Your task to perform on an android device: choose inbox layout in the gmail app Image 0: 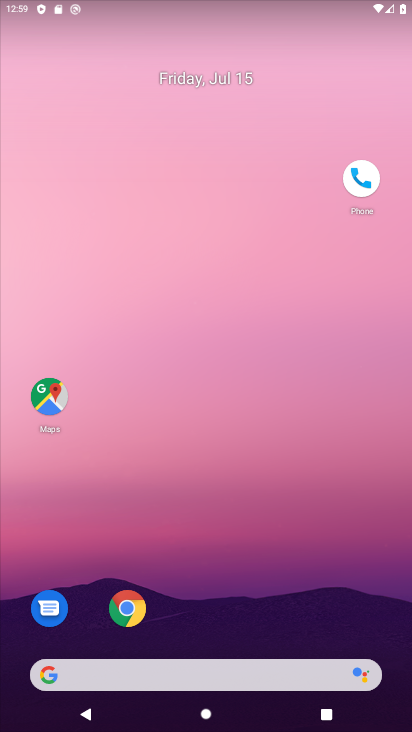
Step 0: drag from (169, 624) to (224, 81)
Your task to perform on an android device: choose inbox layout in the gmail app Image 1: 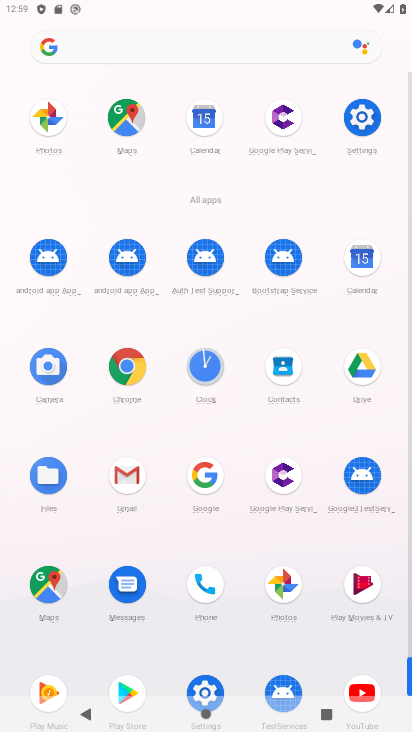
Step 1: click (126, 476)
Your task to perform on an android device: choose inbox layout in the gmail app Image 2: 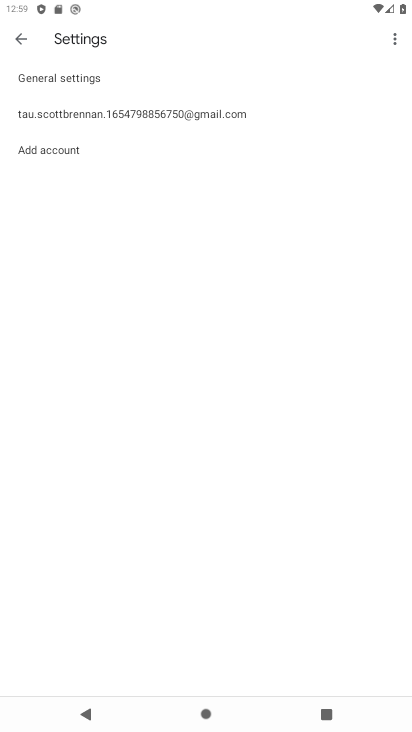
Step 2: drag from (203, 630) to (237, 301)
Your task to perform on an android device: choose inbox layout in the gmail app Image 3: 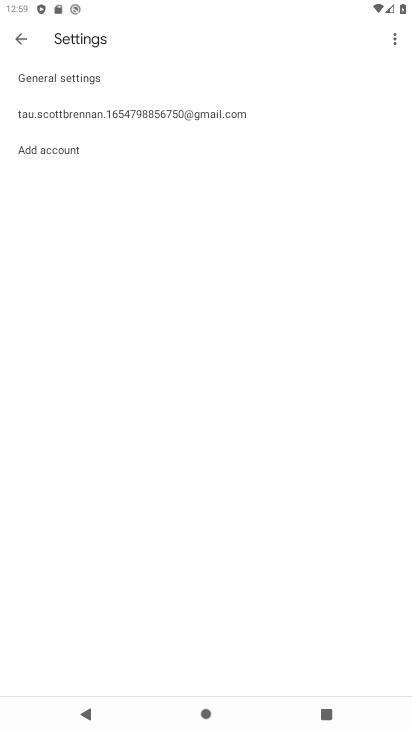
Step 3: click (21, 37)
Your task to perform on an android device: choose inbox layout in the gmail app Image 4: 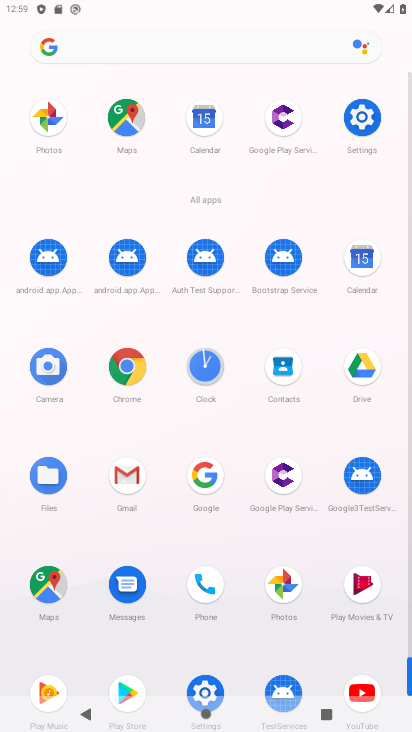
Step 4: click (126, 477)
Your task to perform on an android device: choose inbox layout in the gmail app Image 5: 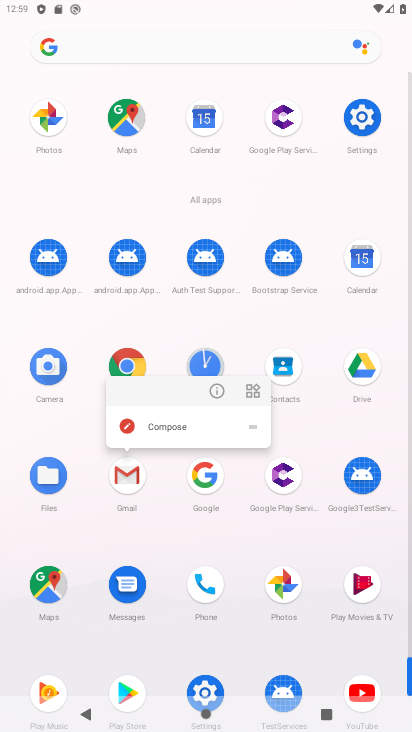
Step 5: click (208, 385)
Your task to perform on an android device: choose inbox layout in the gmail app Image 6: 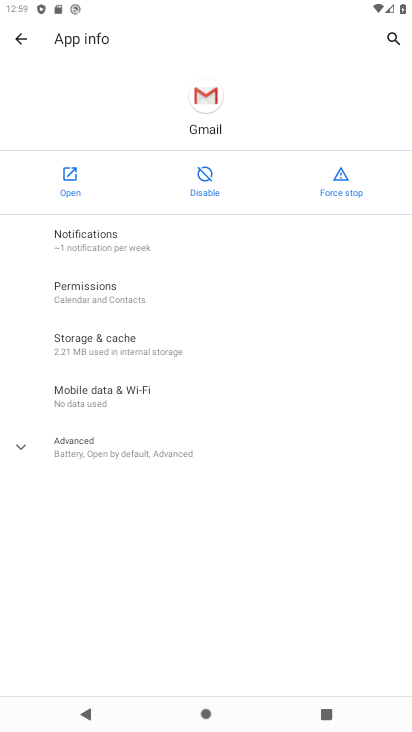
Step 6: click (62, 187)
Your task to perform on an android device: choose inbox layout in the gmail app Image 7: 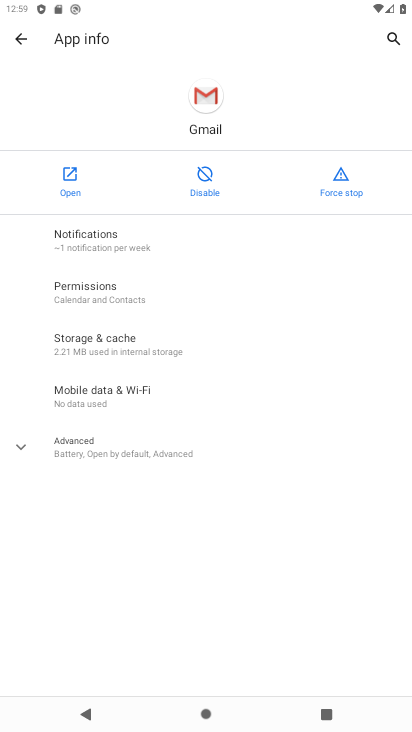
Step 7: click (62, 187)
Your task to perform on an android device: choose inbox layout in the gmail app Image 8: 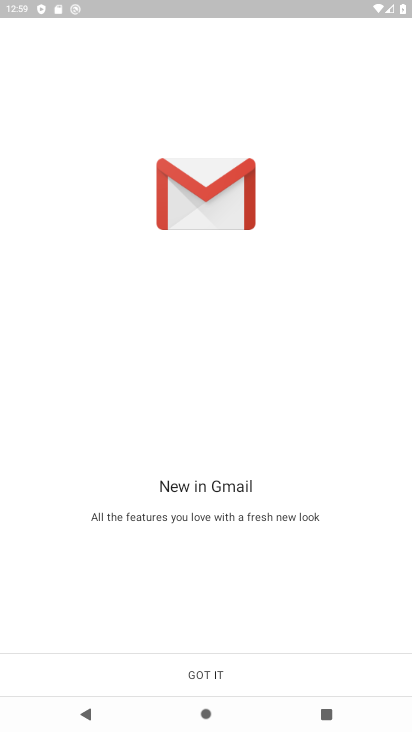
Step 8: click (209, 661)
Your task to perform on an android device: choose inbox layout in the gmail app Image 9: 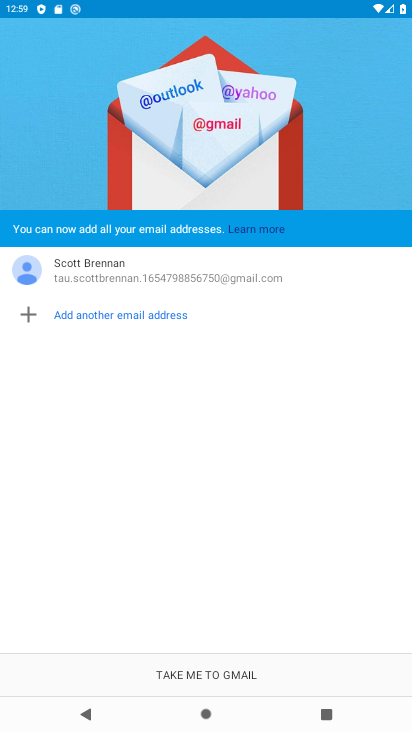
Step 9: drag from (252, 579) to (268, 442)
Your task to perform on an android device: choose inbox layout in the gmail app Image 10: 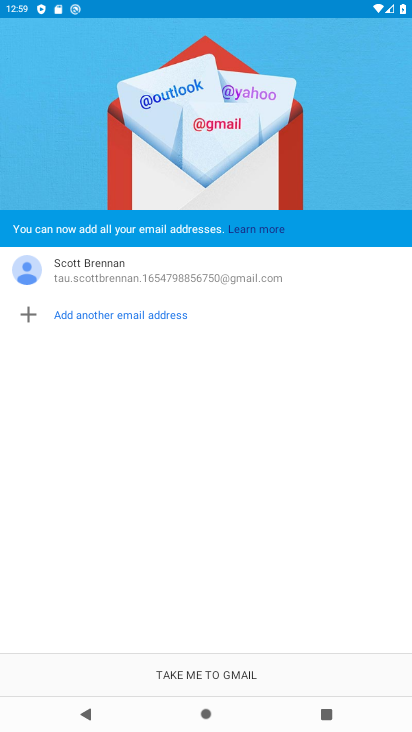
Step 10: click (209, 682)
Your task to perform on an android device: choose inbox layout in the gmail app Image 11: 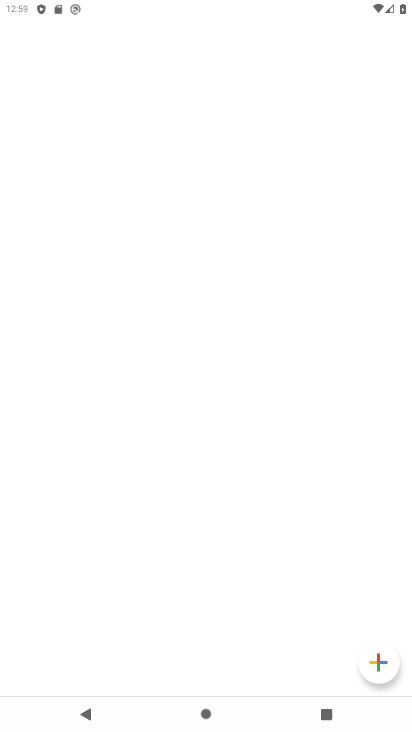
Step 11: drag from (309, 618) to (303, 286)
Your task to perform on an android device: choose inbox layout in the gmail app Image 12: 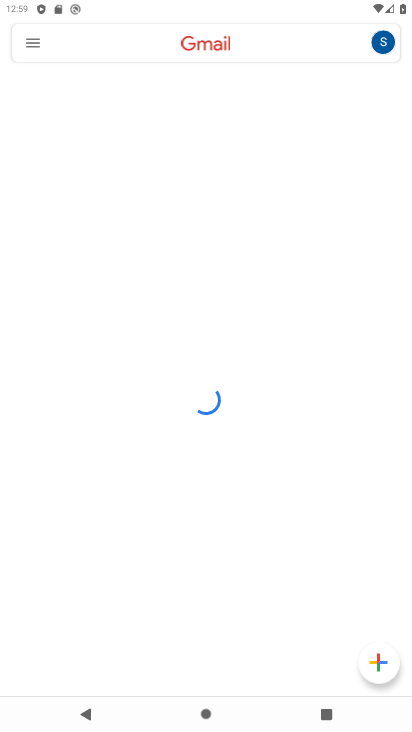
Step 12: drag from (271, 496) to (276, 266)
Your task to perform on an android device: choose inbox layout in the gmail app Image 13: 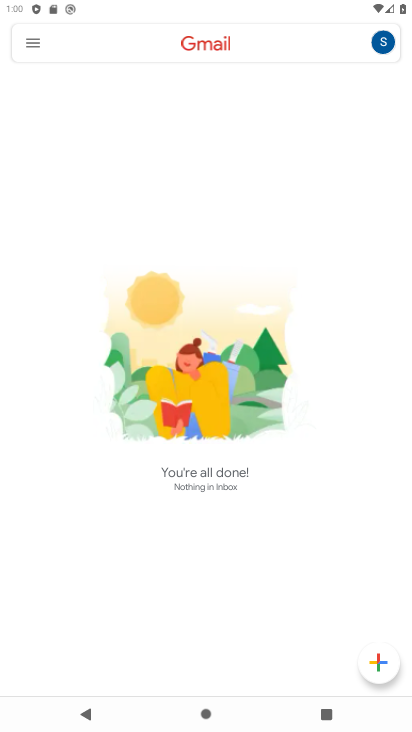
Step 13: click (35, 44)
Your task to perform on an android device: choose inbox layout in the gmail app Image 14: 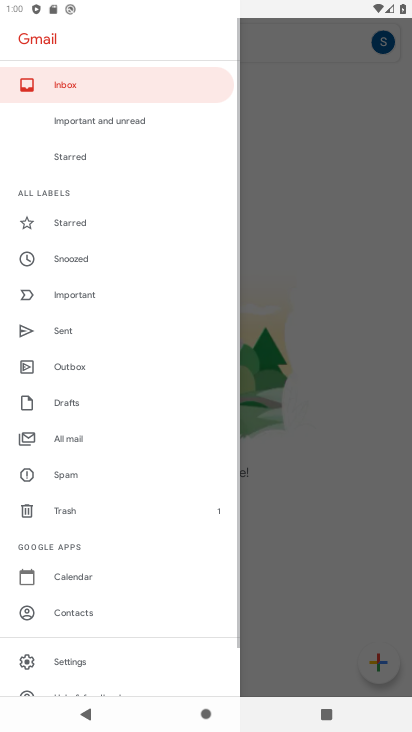
Step 14: click (101, 85)
Your task to perform on an android device: choose inbox layout in the gmail app Image 15: 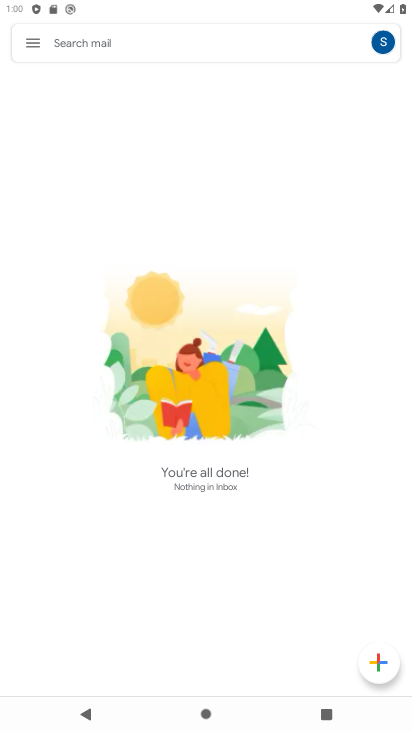
Step 15: task complete